Your task to perform on an android device: Show me productivity apps on the Play Store Image 0: 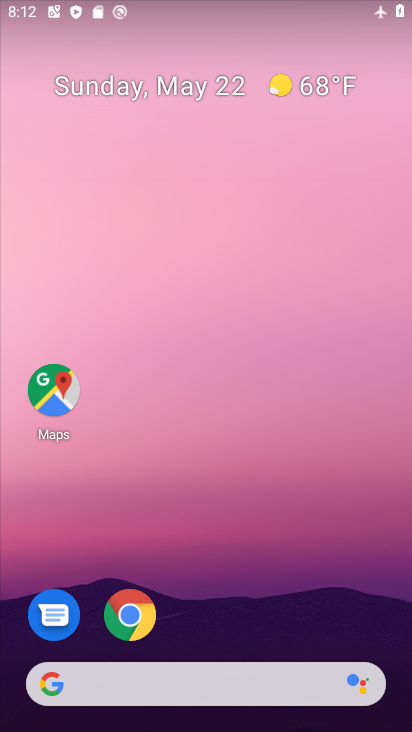
Step 0: click (272, 652)
Your task to perform on an android device: Show me productivity apps on the Play Store Image 1: 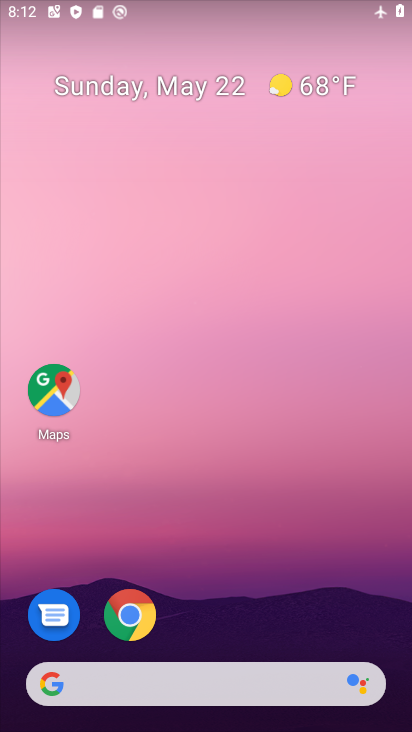
Step 1: drag from (272, 652) to (245, 119)
Your task to perform on an android device: Show me productivity apps on the Play Store Image 2: 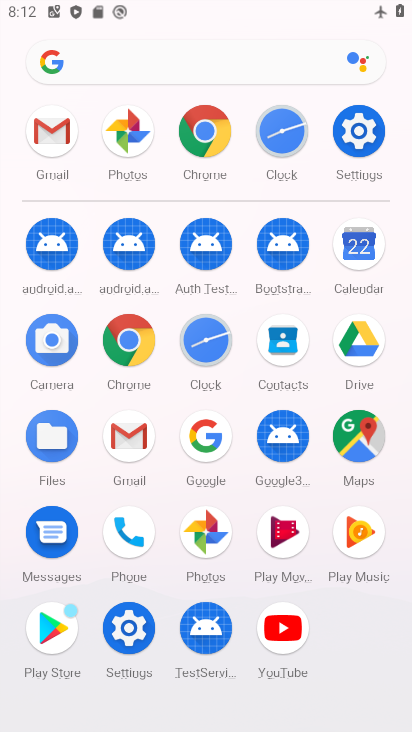
Step 2: click (45, 645)
Your task to perform on an android device: Show me productivity apps on the Play Store Image 3: 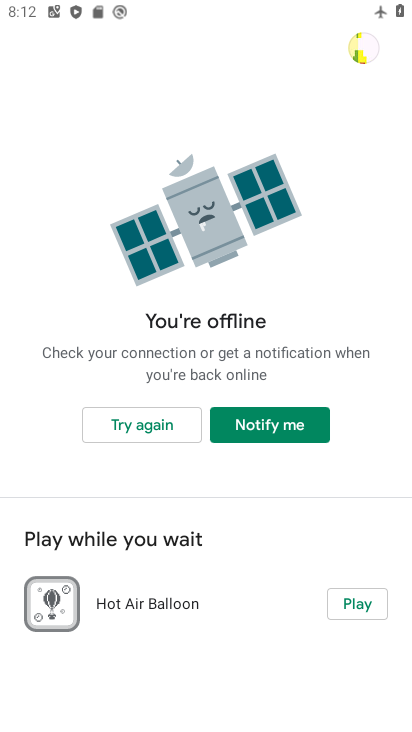
Step 3: click (161, 414)
Your task to perform on an android device: Show me productivity apps on the Play Store Image 4: 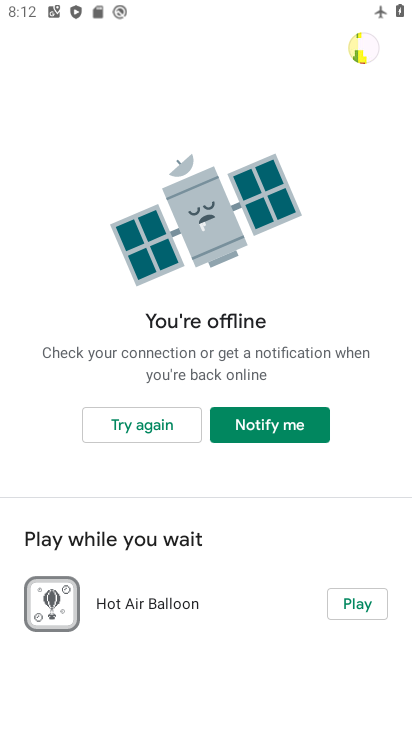
Step 4: task complete